Your task to perform on an android device: change the clock style Image 0: 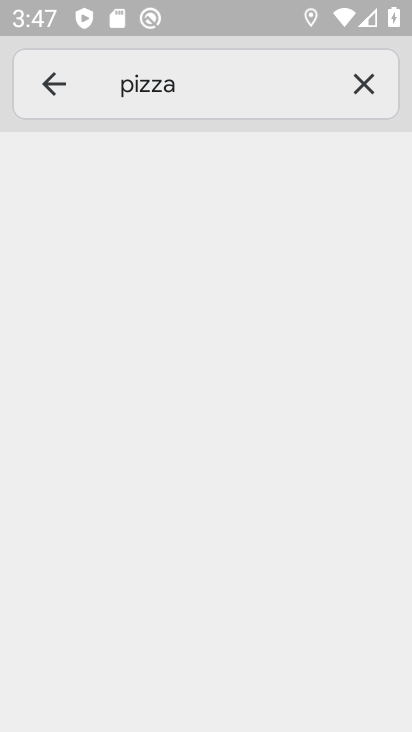
Step 0: press back button
Your task to perform on an android device: change the clock style Image 1: 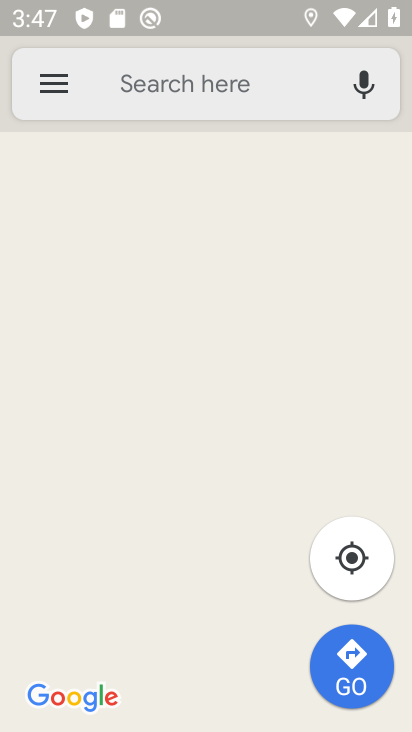
Step 1: press back button
Your task to perform on an android device: change the clock style Image 2: 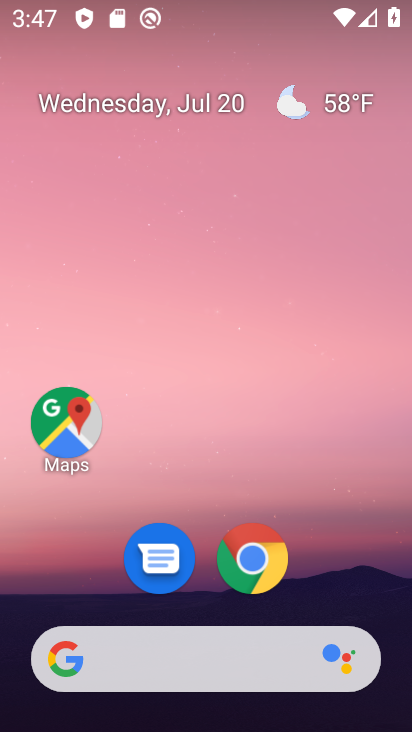
Step 2: drag from (87, 595) to (163, 34)
Your task to perform on an android device: change the clock style Image 3: 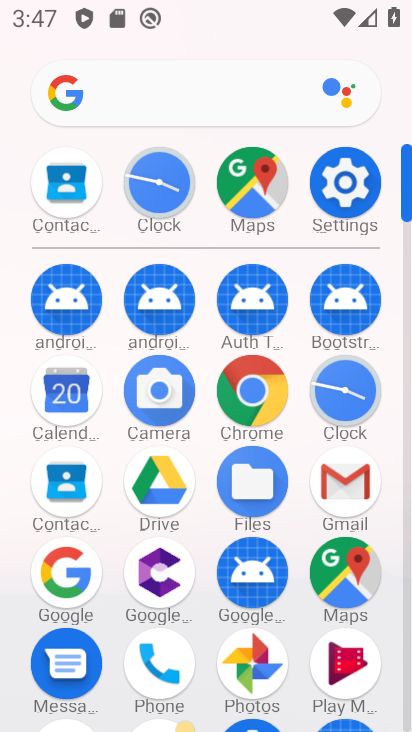
Step 3: click (326, 390)
Your task to perform on an android device: change the clock style Image 4: 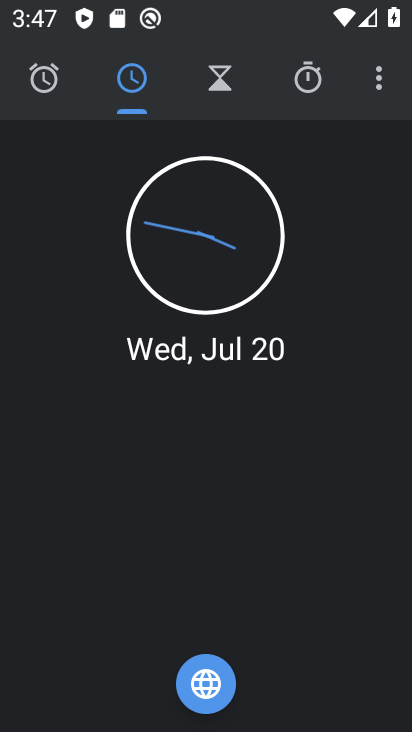
Step 4: click (388, 71)
Your task to perform on an android device: change the clock style Image 5: 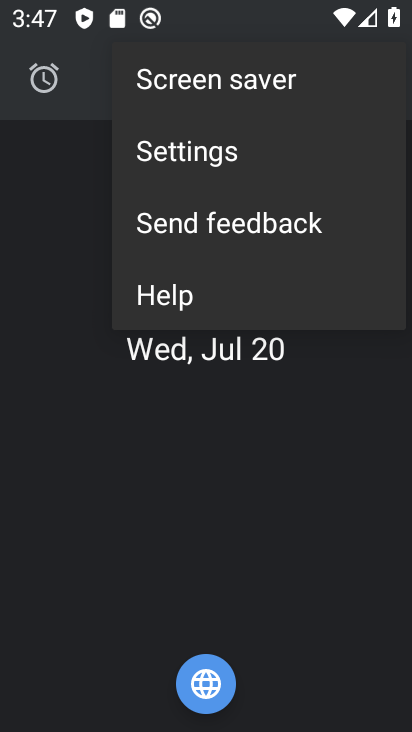
Step 5: click (178, 150)
Your task to perform on an android device: change the clock style Image 6: 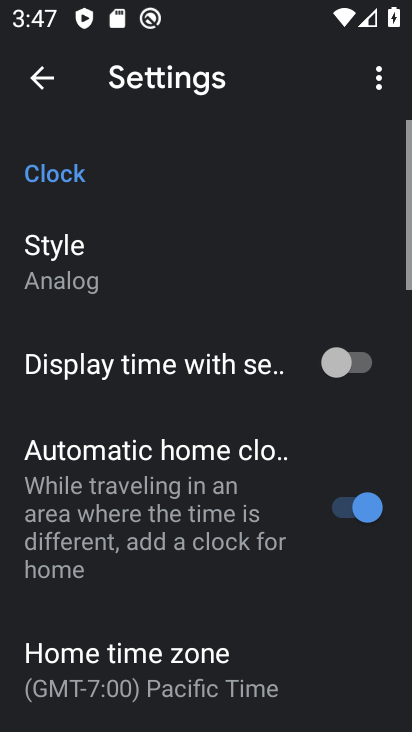
Step 6: click (97, 286)
Your task to perform on an android device: change the clock style Image 7: 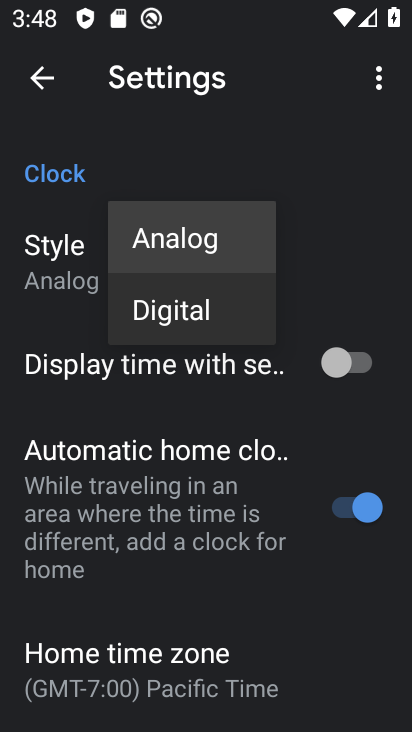
Step 7: click (144, 297)
Your task to perform on an android device: change the clock style Image 8: 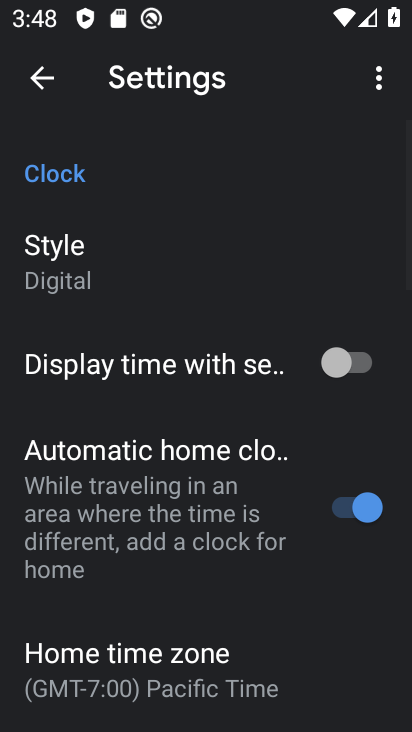
Step 8: task complete